Your task to perform on an android device: change alarm snooze length Image 0: 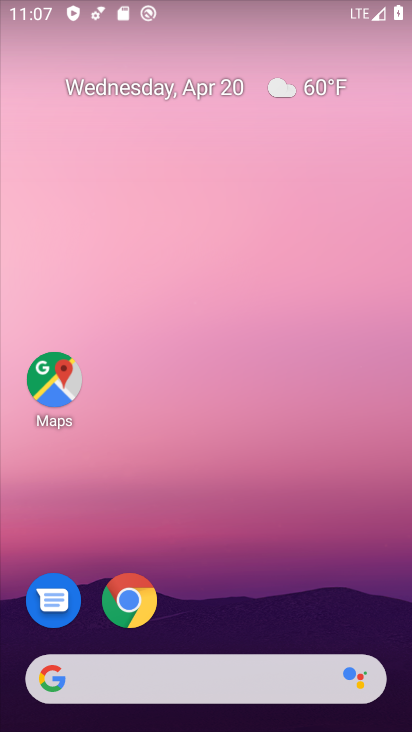
Step 0: drag from (362, 550) to (280, 82)
Your task to perform on an android device: change alarm snooze length Image 1: 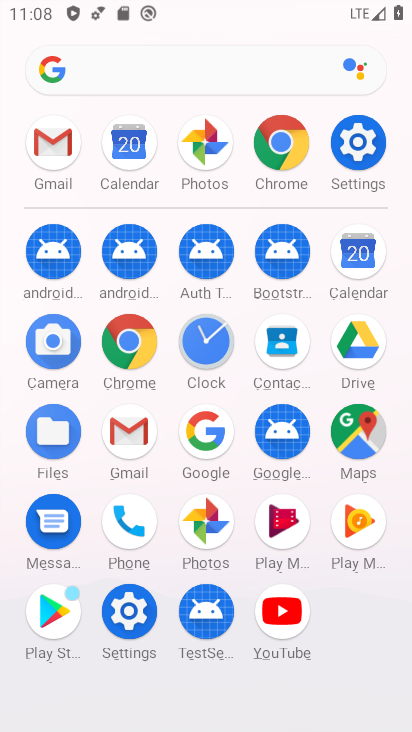
Step 1: click (210, 353)
Your task to perform on an android device: change alarm snooze length Image 2: 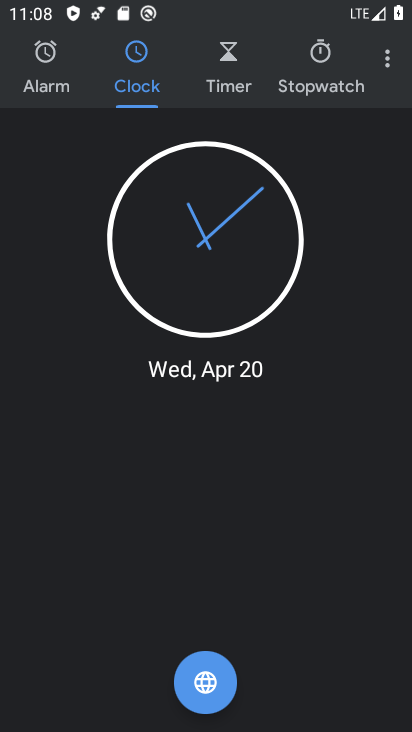
Step 2: click (386, 56)
Your task to perform on an android device: change alarm snooze length Image 3: 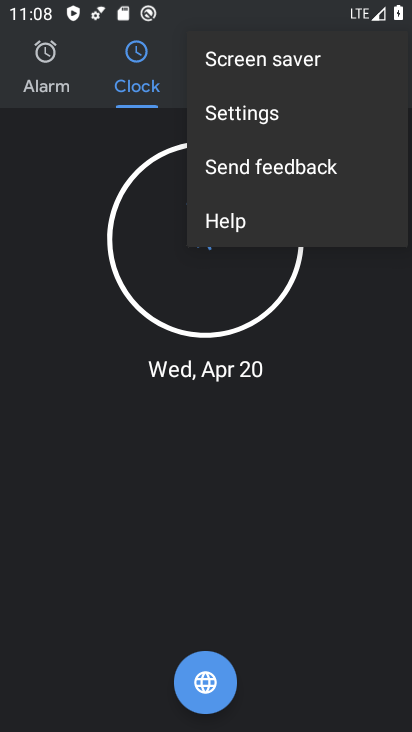
Step 3: click (275, 128)
Your task to perform on an android device: change alarm snooze length Image 4: 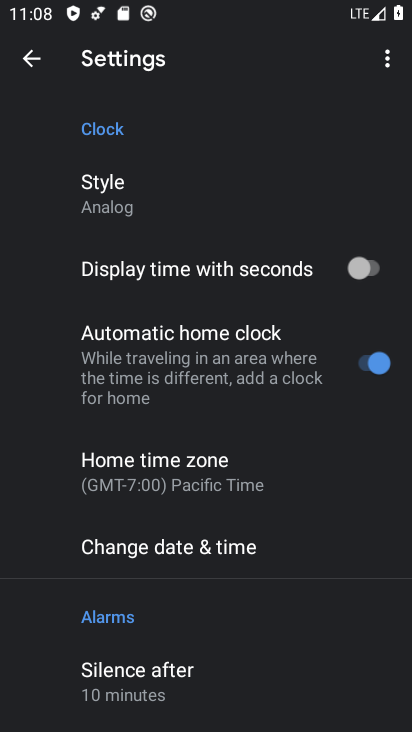
Step 4: drag from (256, 586) to (279, 170)
Your task to perform on an android device: change alarm snooze length Image 5: 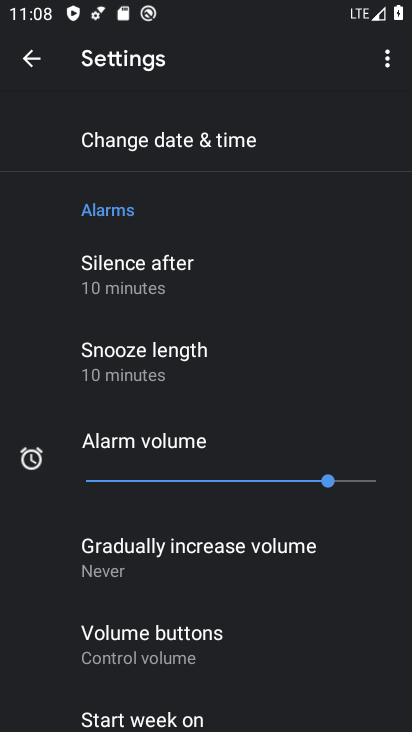
Step 5: click (170, 374)
Your task to perform on an android device: change alarm snooze length Image 6: 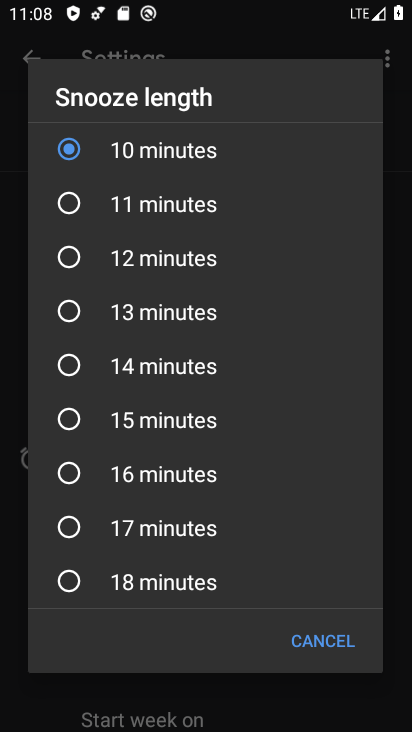
Step 6: click (183, 223)
Your task to perform on an android device: change alarm snooze length Image 7: 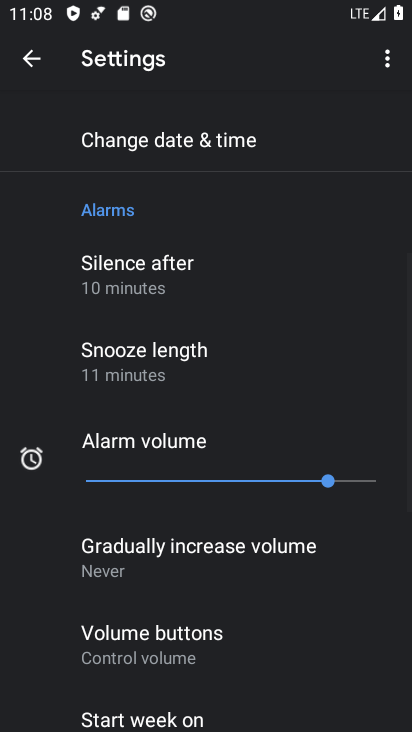
Step 7: task complete